Your task to perform on an android device: Do I have any events tomorrow? Image 0: 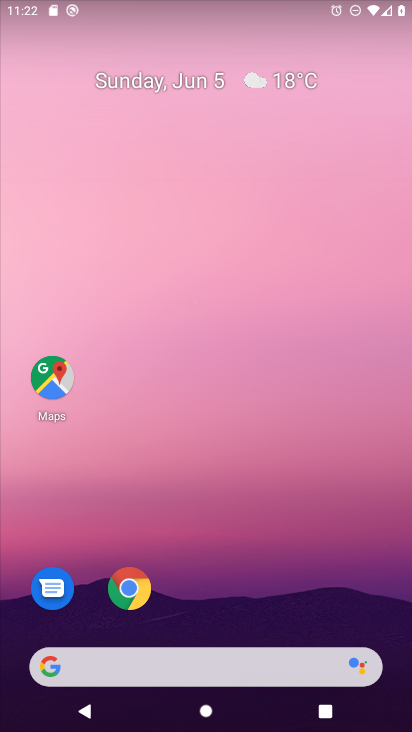
Step 0: drag from (370, 615) to (372, 126)
Your task to perform on an android device: Do I have any events tomorrow? Image 1: 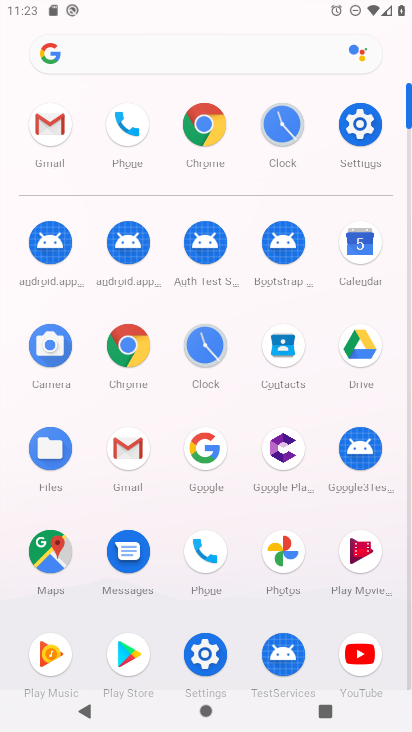
Step 1: click (361, 264)
Your task to perform on an android device: Do I have any events tomorrow? Image 2: 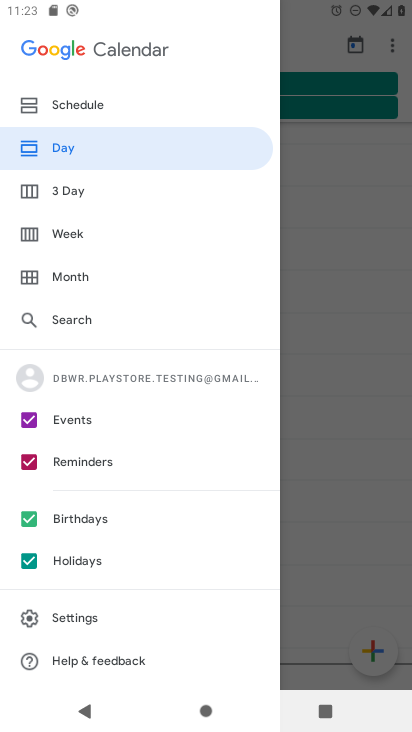
Step 2: click (94, 111)
Your task to perform on an android device: Do I have any events tomorrow? Image 3: 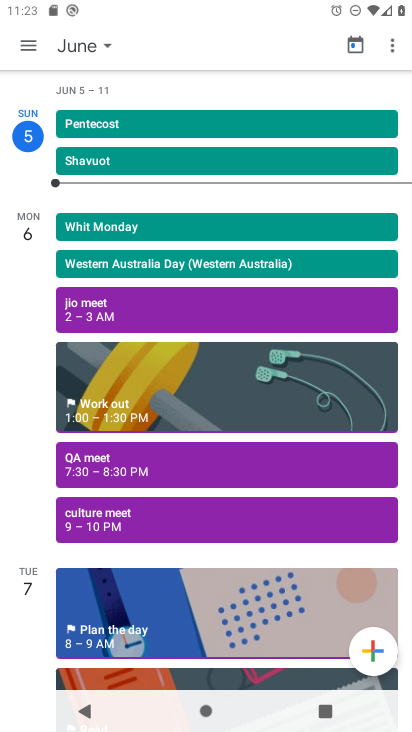
Step 3: drag from (234, 482) to (244, 216)
Your task to perform on an android device: Do I have any events tomorrow? Image 4: 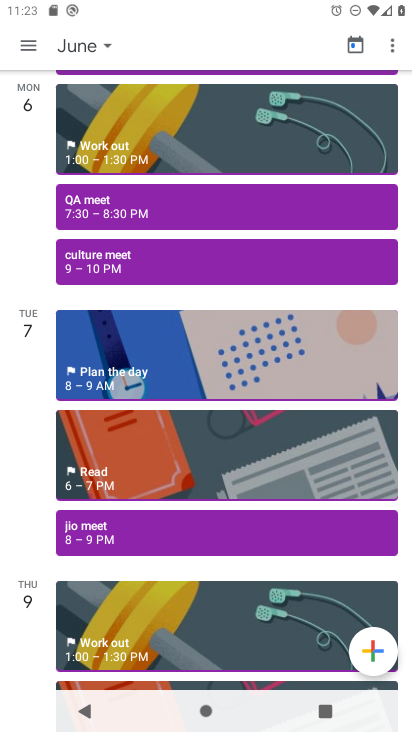
Step 4: click (192, 349)
Your task to perform on an android device: Do I have any events tomorrow? Image 5: 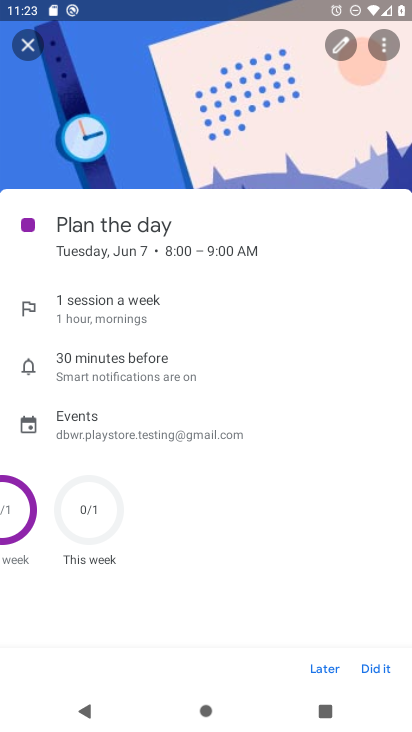
Step 5: task complete